Your task to perform on an android device: stop showing notifications on the lock screen Image 0: 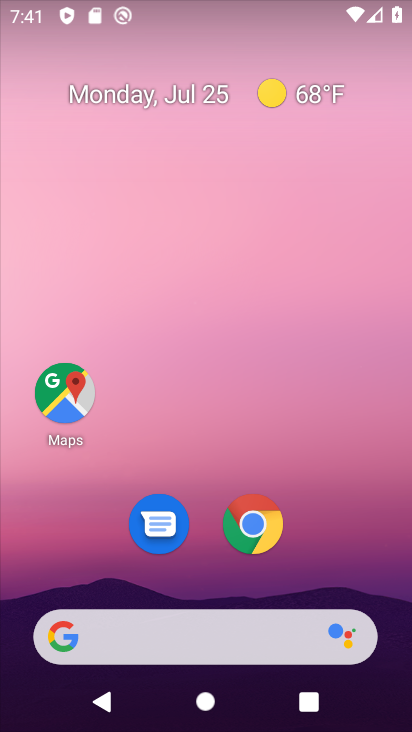
Step 0: drag from (317, 541) to (288, 1)
Your task to perform on an android device: stop showing notifications on the lock screen Image 1: 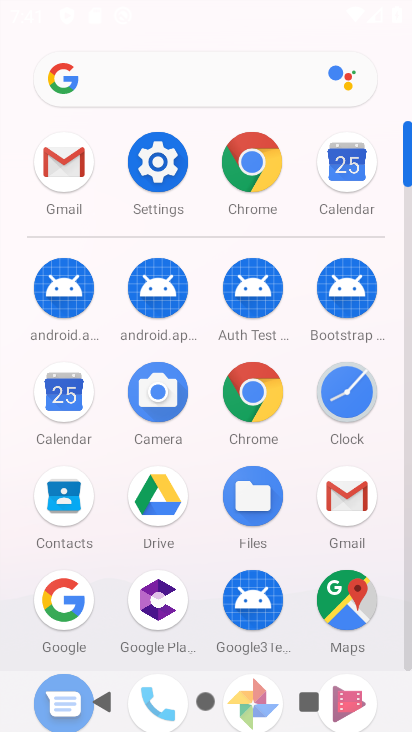
Step 1: click (168, 151)
Your task to perform on an android device: stop showing notifications on the lock screen Image 2: 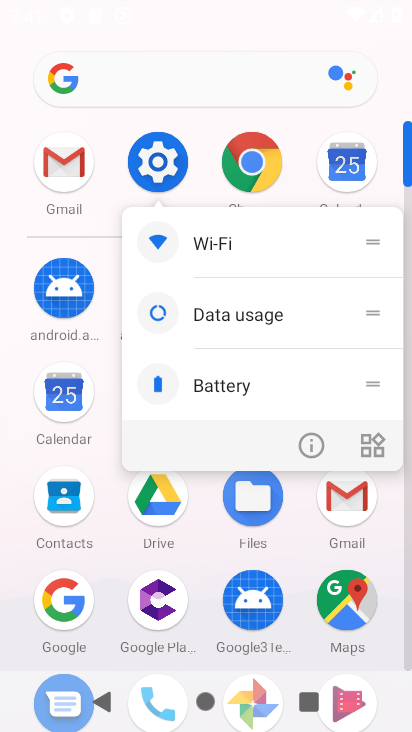
Step 2: click (164, 167)
Your task to perform on an android device: stop showing notifications on the lock screen Image 3: 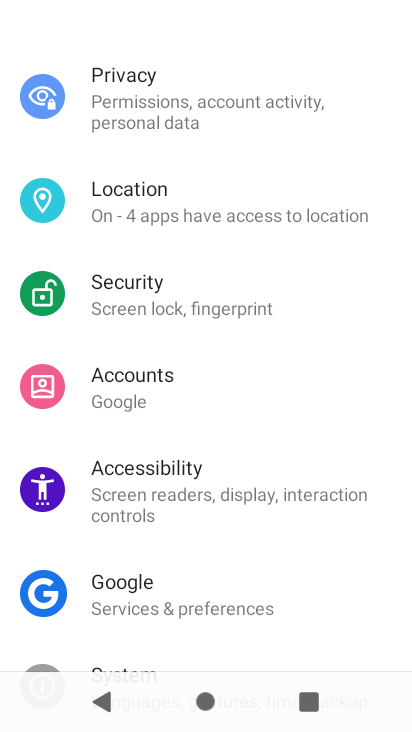
Step 3: drag from (220, 156) to (227, 535)
Your task to perform on an android device: stop showing notifications on the lock screen Image 4: 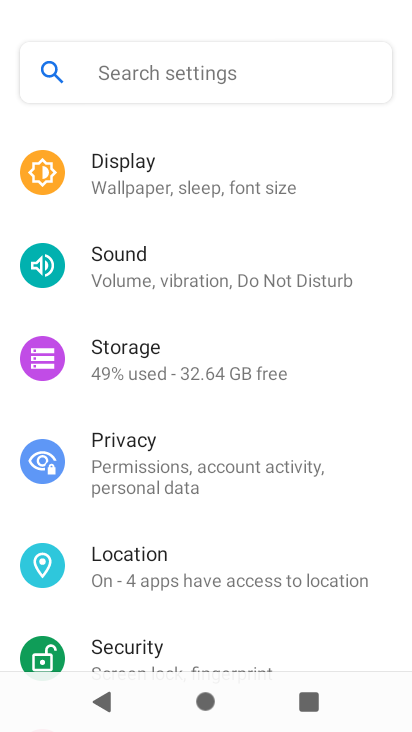
Step 4: drag from (228, 237) to (244, 523)
Your task to perform on an android device: stop showing notifications on the lock screen Image 5: 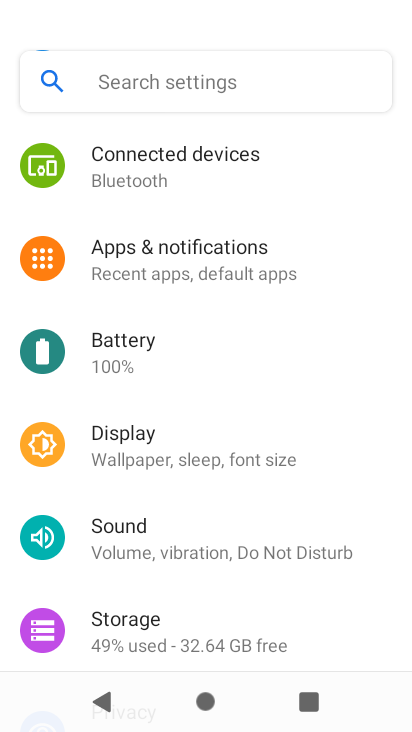
Step 5: click (229, 255)
Your task to perform on an android device: stop showing notifications on the lock screen Image 6: 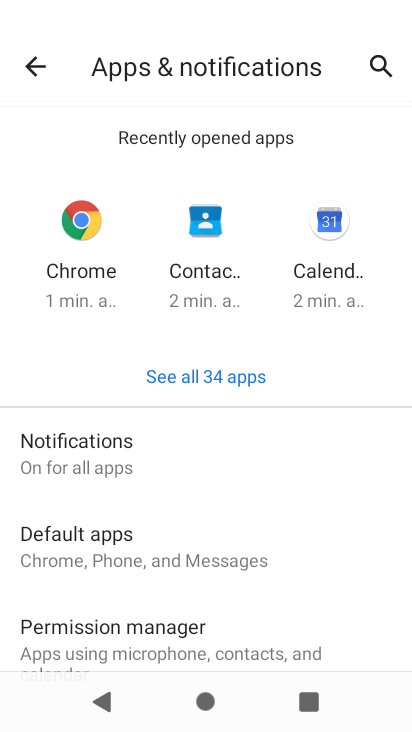
Step 6: click (117, 453)
Your task to perform on an android device: stop showing notifications on the lock screen Image 7: 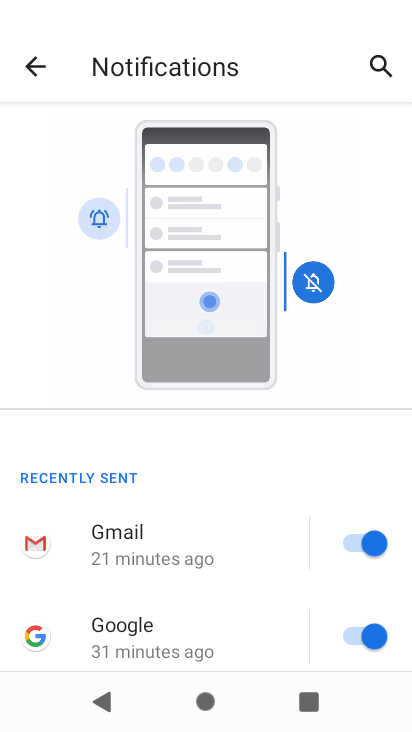
Step 7: drag from (235, 530) to (250, 57)
Your task to perform on an android device: stop showing notifications on the lock screen Image 8: 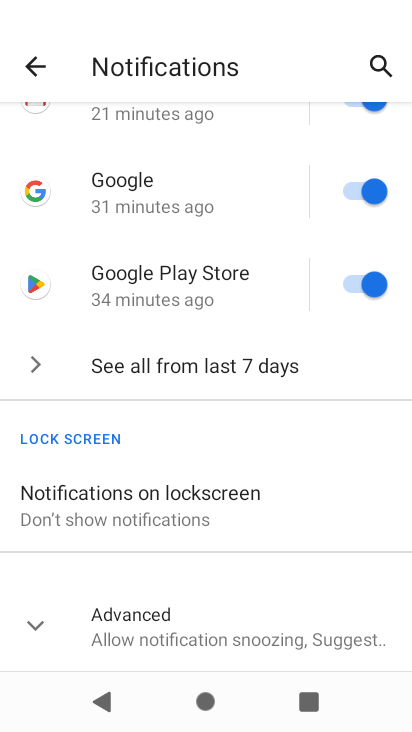
Step 8: click (193, 504)
Your task to perform on an android device: stop showing notifications on the lock screen Image 9: 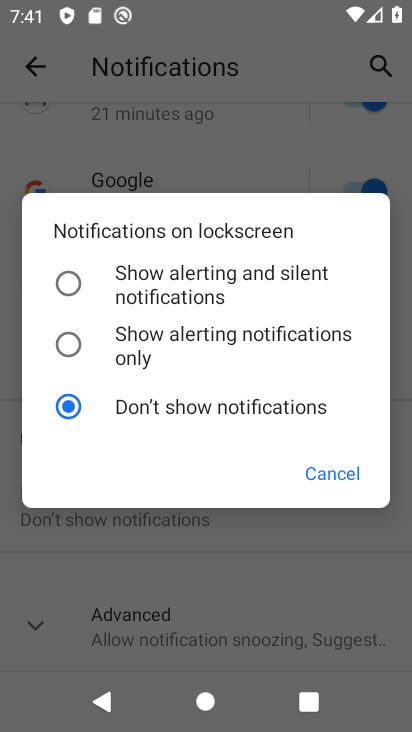
Step 9: click (142, 405)
Your task to perform on an android device: stop showing notifications on the lock screen Image 10: 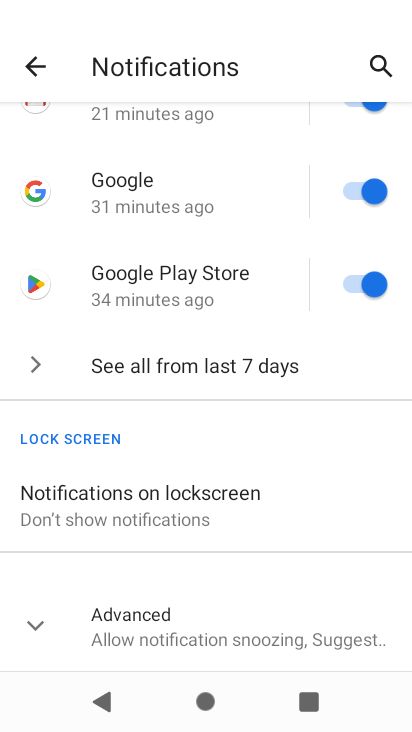
Step 10: task complete